Your task to perform on an android device: Go to accessibility settings Image 0: 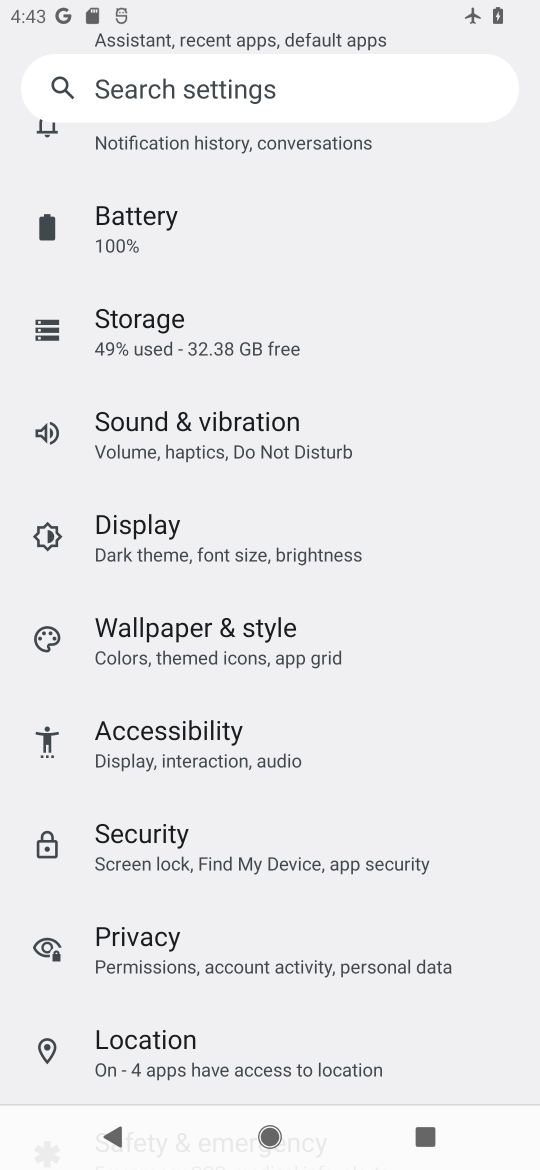
Step 0: click (262, 744)
Your task to perform on an android device: Go to accessibility settings Image 1: 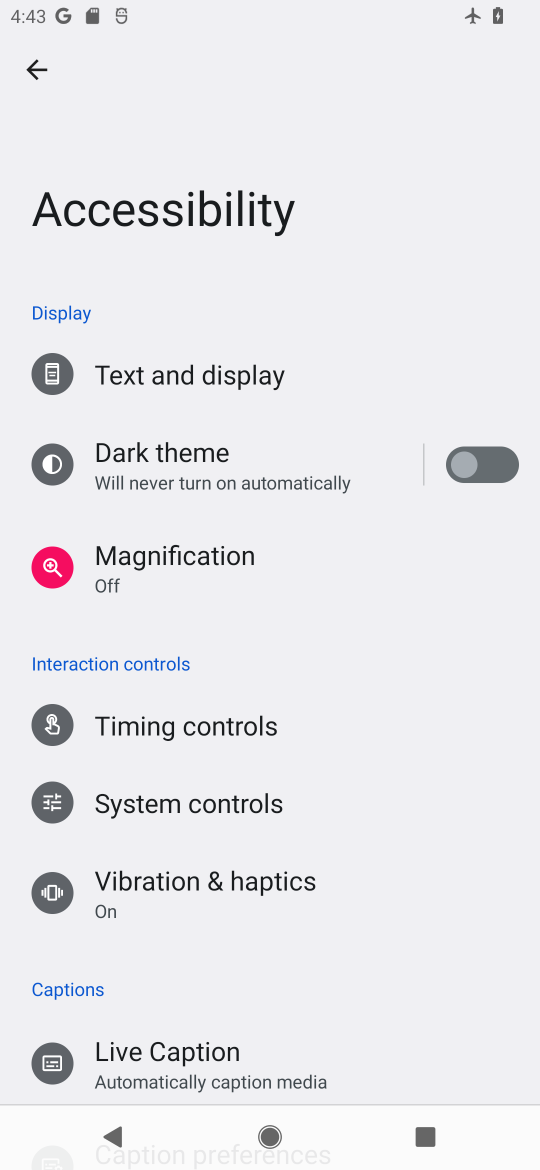
Step 1: task complete